Your task to perform on an android device: Open CNN.com Image 0: 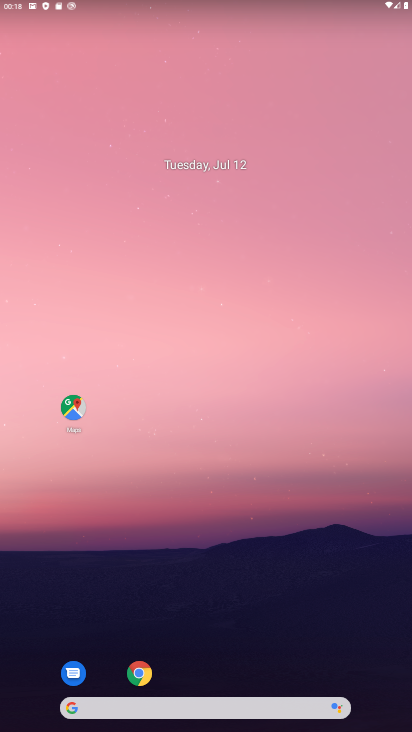
Step 0: press home button
Your task to perform on an android device: Open CNN.com Image 1: 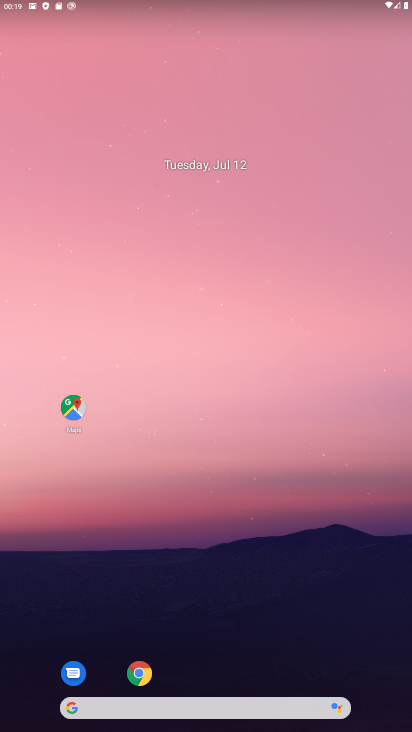
Step 1: click (289, 706)
Your task to perform on an android device: Open CNN.com Image 2: 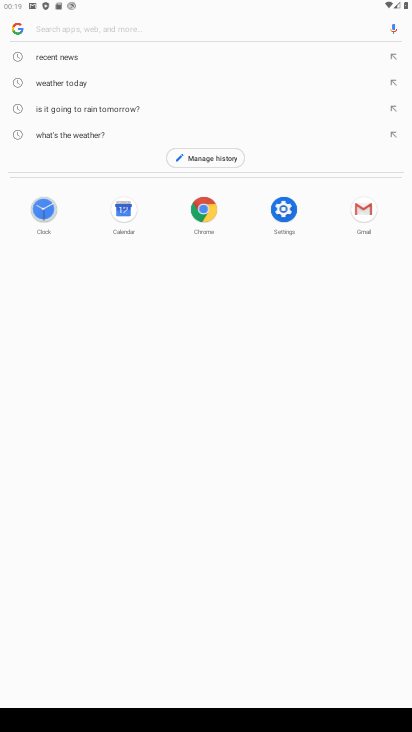
Step 2: type "CNN.com"
Your task to perform on an android device: Open CNN.com Image 3: 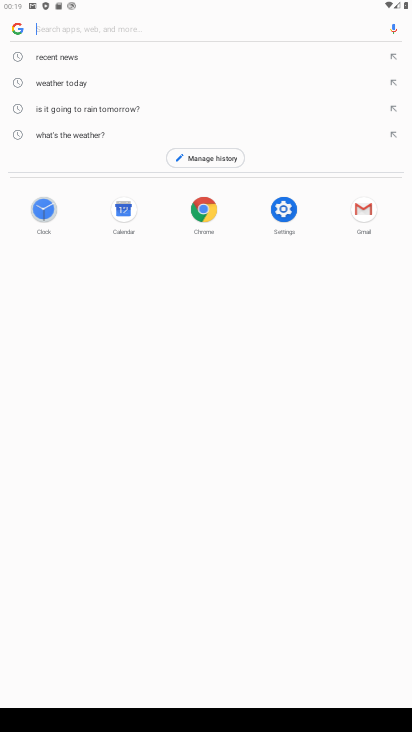
Step 3: click (71, 31)
Your task to perform on an android device: Open CNN.com Image 4: 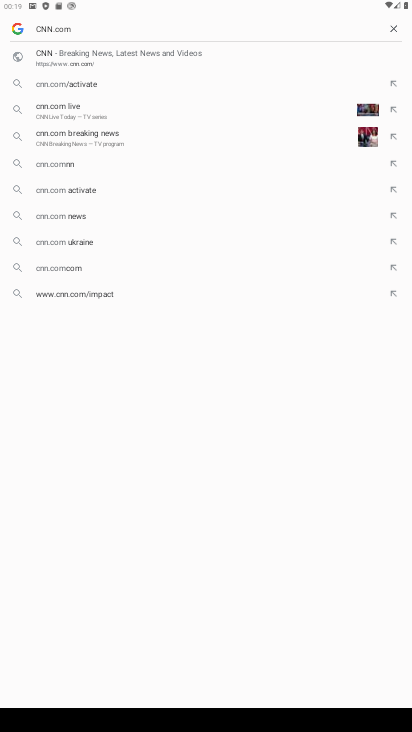
Step 4: click (81, 58)
Your task to perform on an android device: Open CNN.com Image 5: 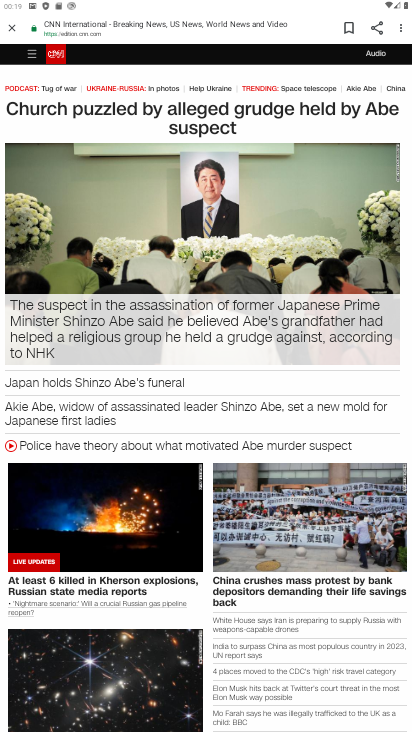
Step 5: task complete